Your task to perform on an android device: Do I have any events today? Image 0: 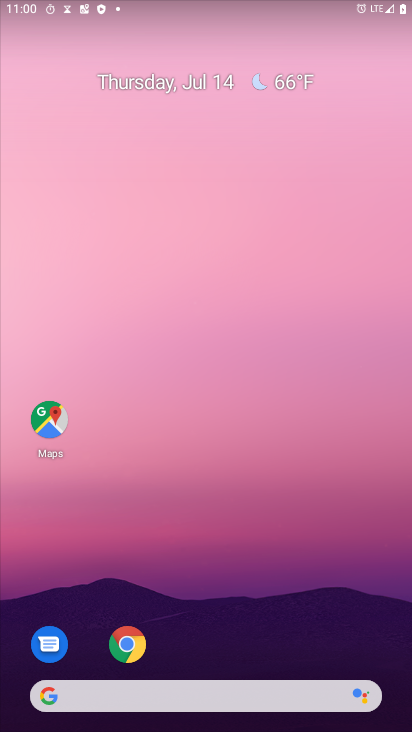
Step 0: drag from (213, 689) to (140, 202)
Your task to perform on an android device: Do I have any events today? Image 1: 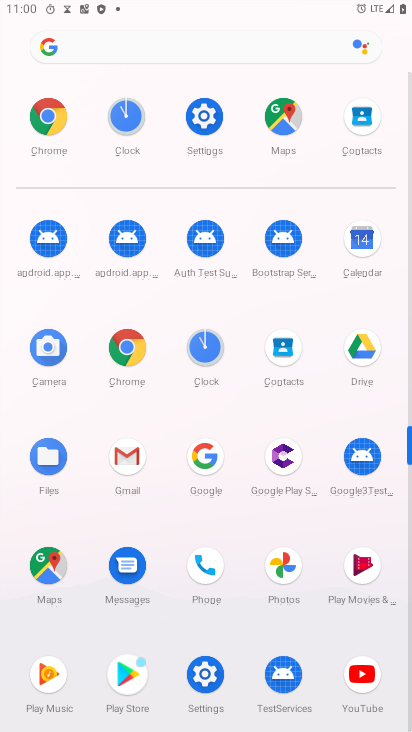
Step 1: click (356, 245)
Your task to perform on an android device: Do I have any events today? Image 2: 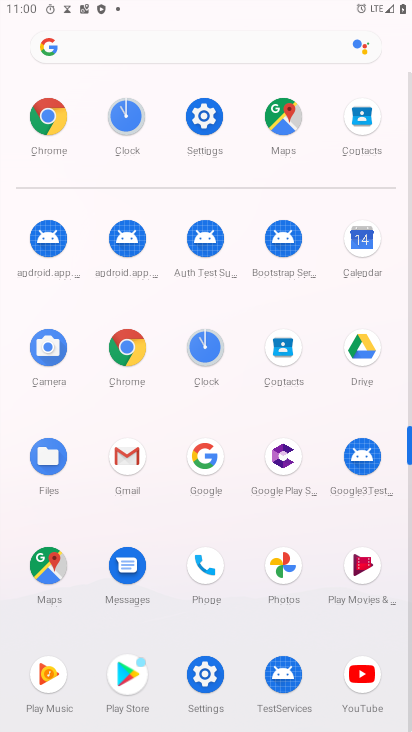
Step 2: click (356, 245)
Your task to perform on an android device: Do I have any events today? Image 3: 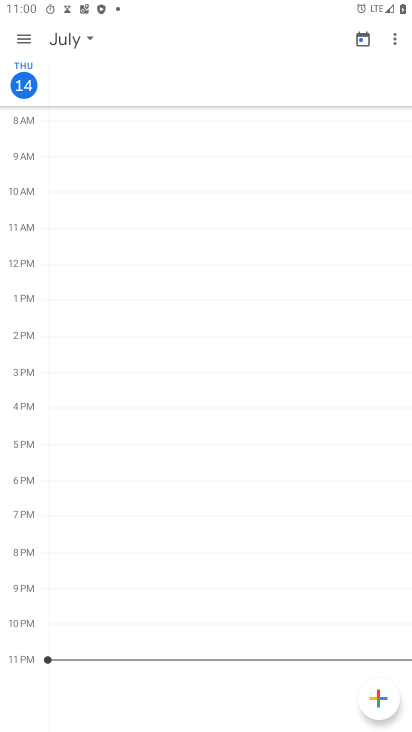
Step 3: click (88, 37)
Your task to perform on an android device: Do I have any events today? Image 4: 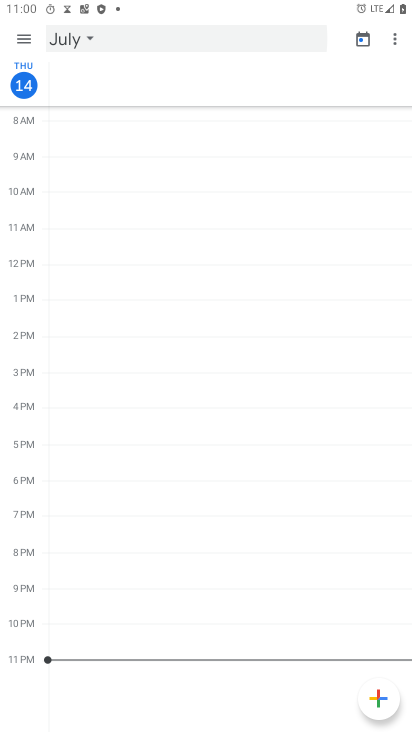
Step 4: click (88, 37)
Your task to perform on an android device: Do I have any events today? Image 5: 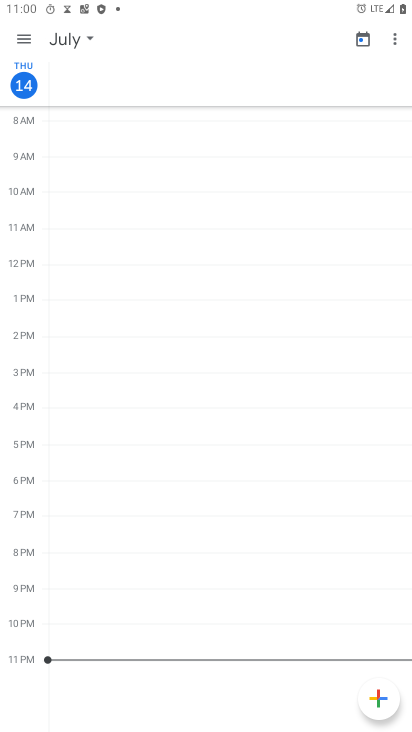
Step 5: click (84, 36)
Your task to perform on an android device: Do I have any events today? Image 6: 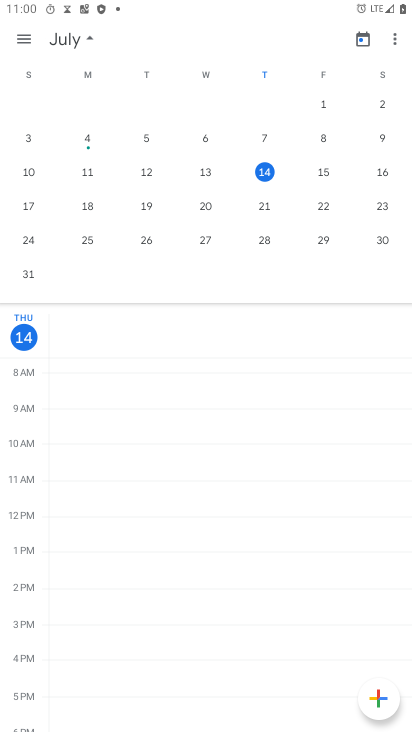
Step 6: click (324, 171)
Your task to perform on an android device: Do I have any events today? Image 7: 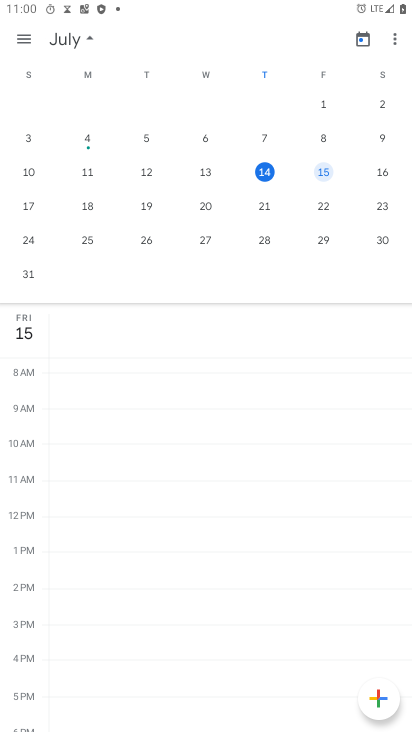
Step 7: click (385, 169)
Your task to perform on an android device: Do I have any events today? Image 8: 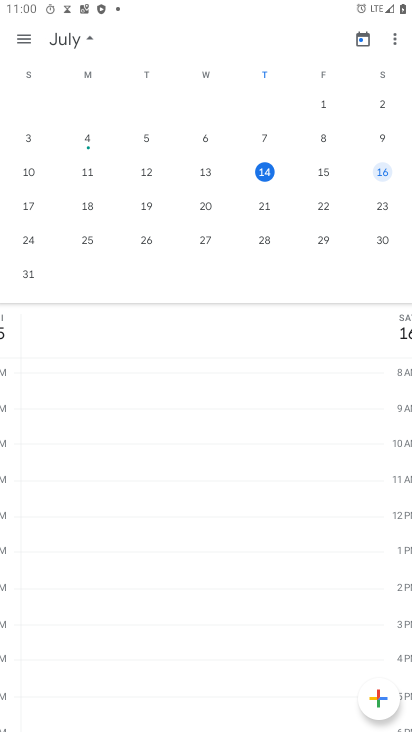
Step 8: click (384, 169)
Your task to perform on an android device: Do I have any events today? Image 9: 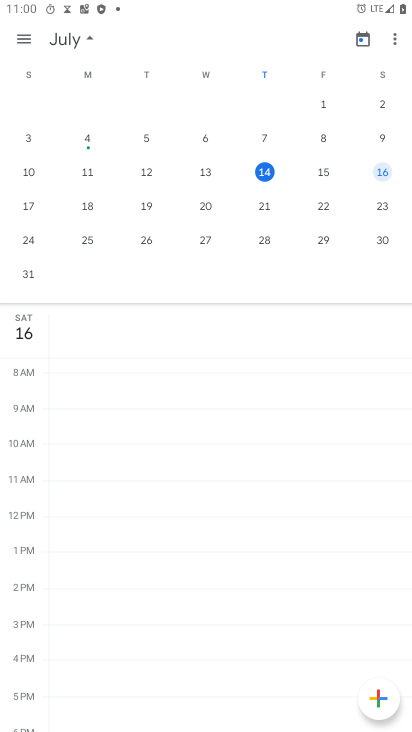
Step 9: click (384, 169)
Your task to perform on an android device: Do I have any events today? Image 10: 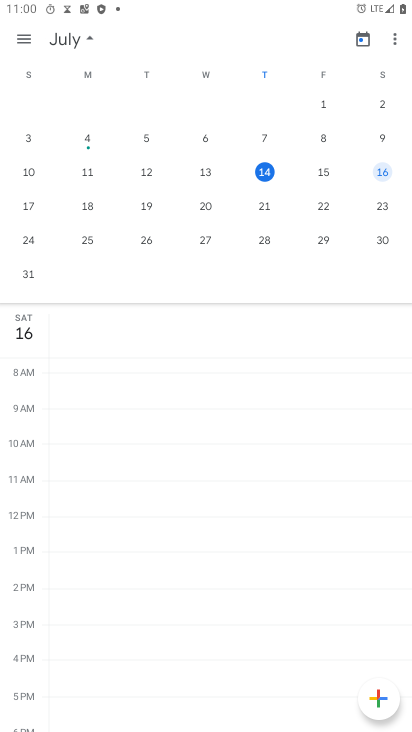
Step 10: click (318, 170)
Your task to perform on an android device: Do I have any events today? Image 11: 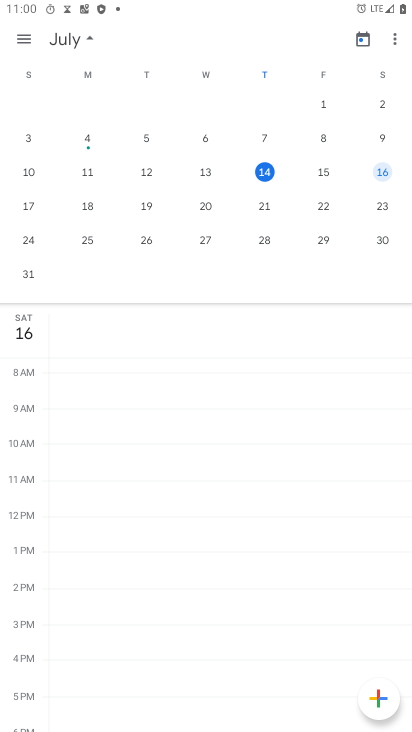
Step 11: click (318, 170)
Your task to perform on an android device: Do I have any events today? Image 12: 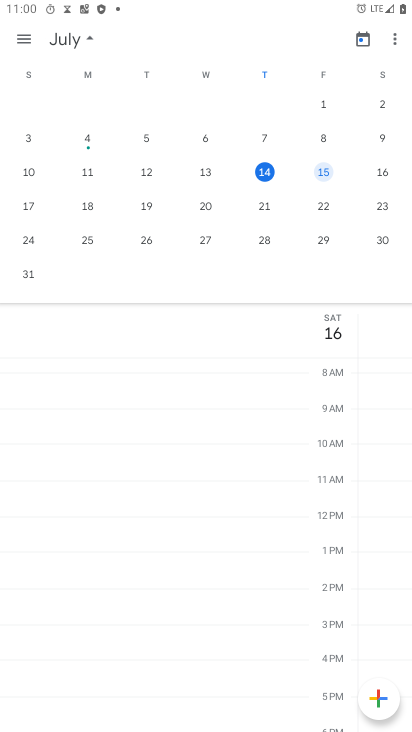
Step 12: click (317, 170)
Your task to perform on an android device: Do I have any events today? Image 13: 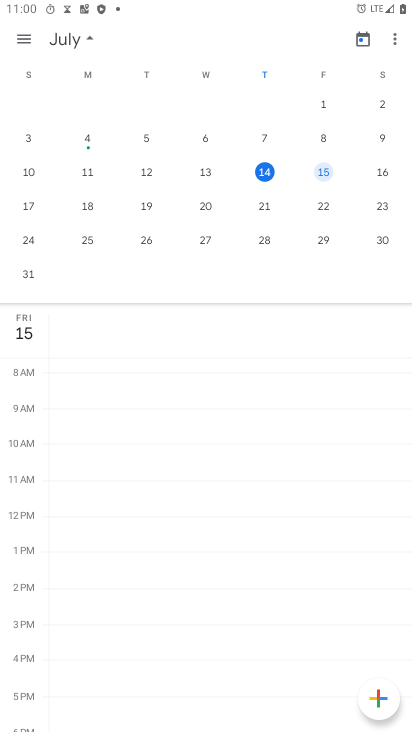
Step 13: click (317, 170)
Your task to perform on an android device: Do I have any events today? Image 14: 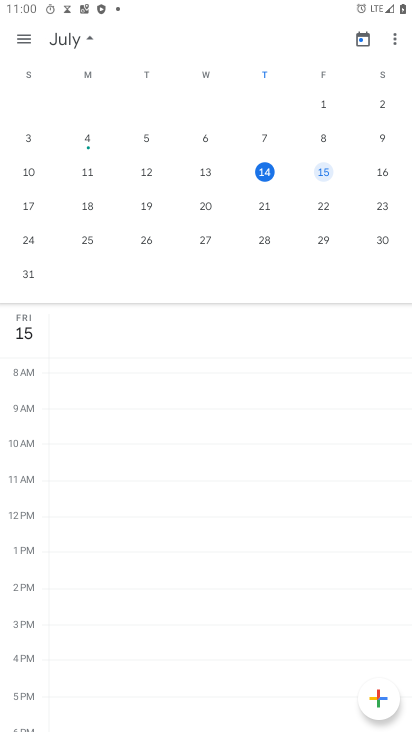
Step 14: click (317, 170)
Your task to perform on an android device: Do I have any events today? Image 15: 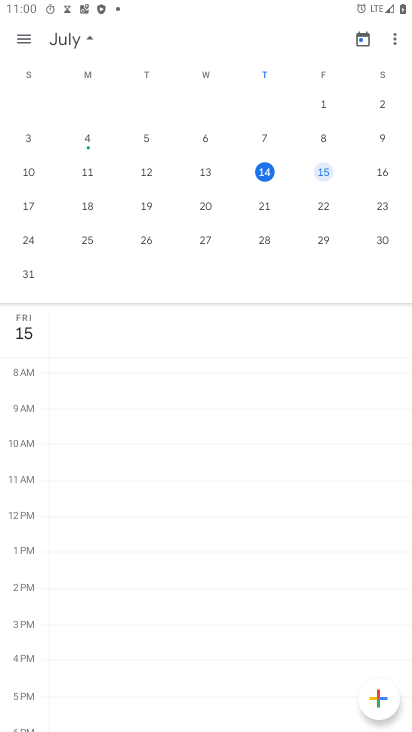
Step 15: task complete